Your task to perform on an android device: turn notification dots off Image 0: 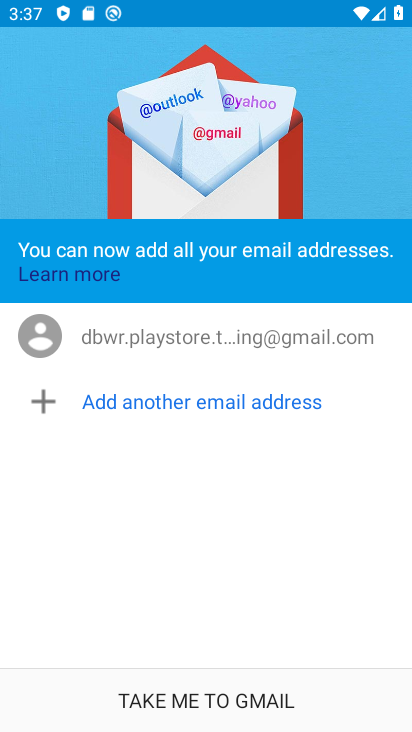
Step 0: press home button
Your task to perform on an android device: turn notification dots off Image 1: 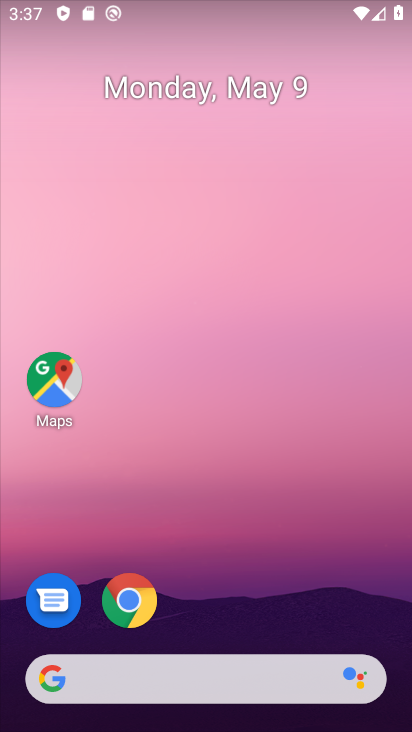
Step 1: drag from (296, 625) to (300, 4)
Your task to perform on an android device: turn notification dots off Image 2: 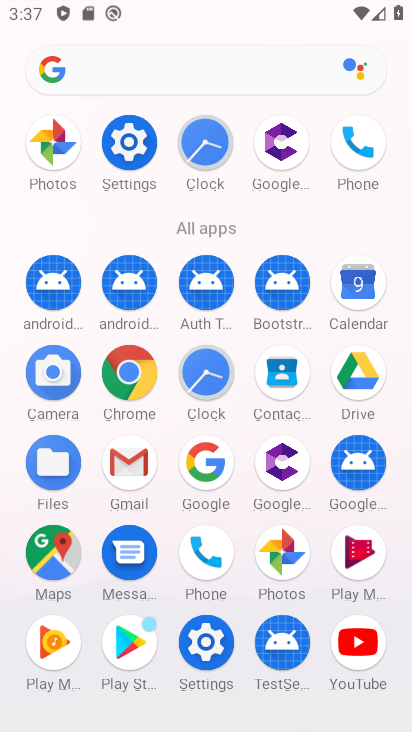
Step 2: click (119, 140)
Your task to perform on an android device: turn notification dots off Image 3: 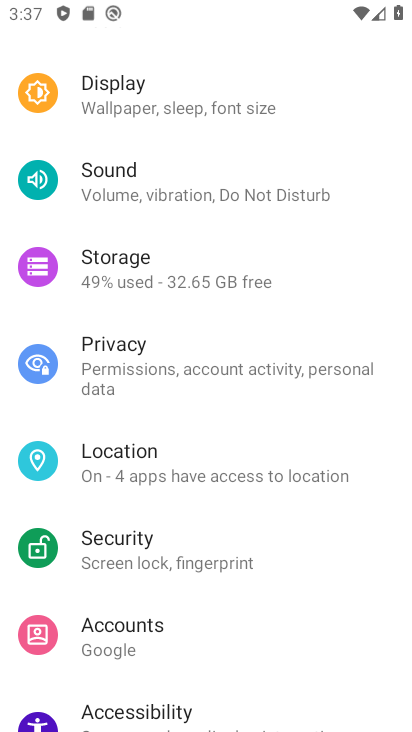
Step 3: drag from (221, 181) to (234, 696)
Your task to perform on an android device: turn notification dots off Image 4: 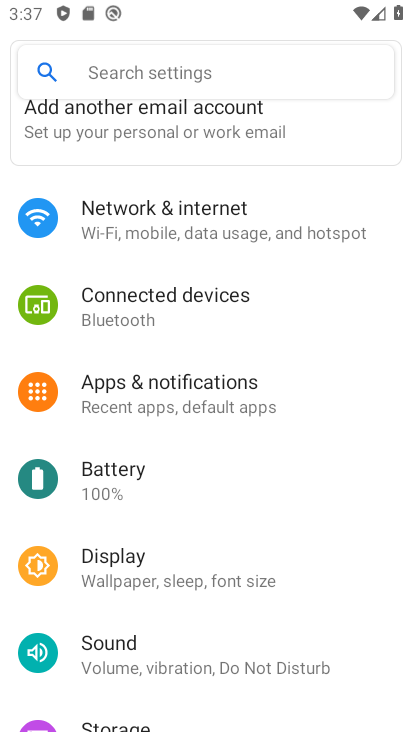
Step 4: click (217, 392)
Your task to perform on an android device: turn notification dots off Image 5: 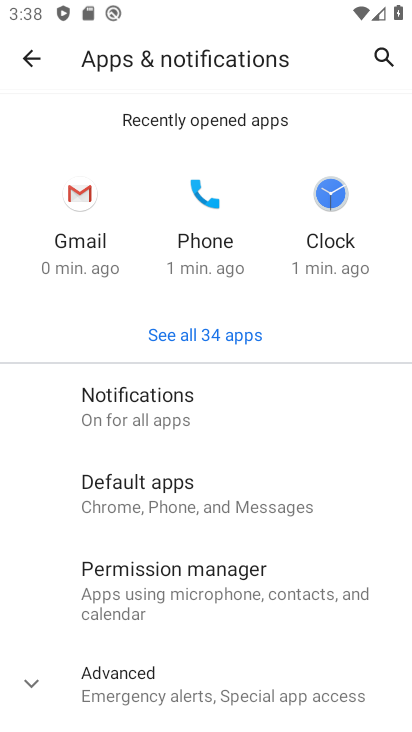
Step 5: click (195, 419)
Your task to perform on an android device: turn notification dots off Image 6: 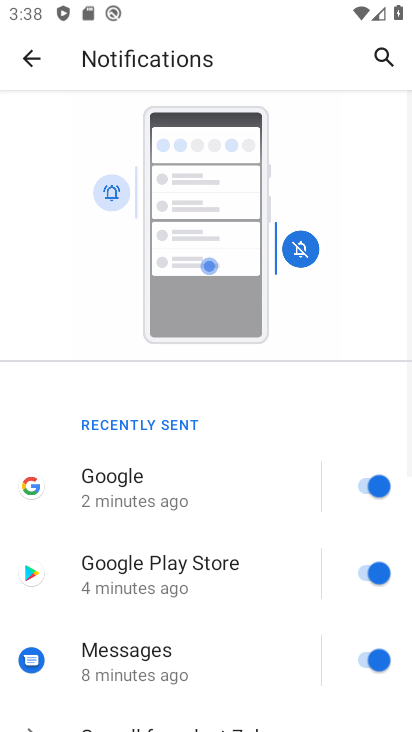
Step 6: drag from (259, 667) to (308, 100)
Your task to perform on an android device: turn notification dots off Image 7: 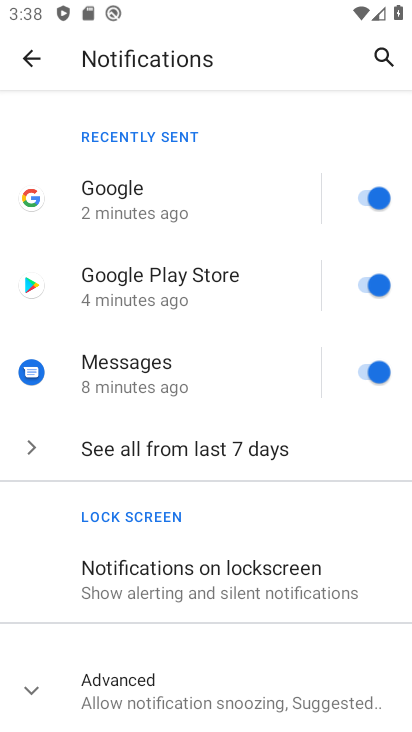
Step 7: click (253, 679)
Your task to perform on an android device: turn notification dots off Image 8: 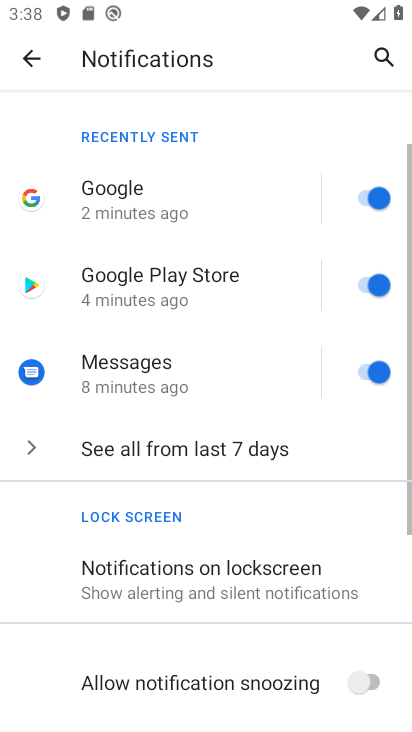
Step 8: drag from (267, 692) to (288, 205)
Your task to perform on an android device: turn notification dots off Image 9: 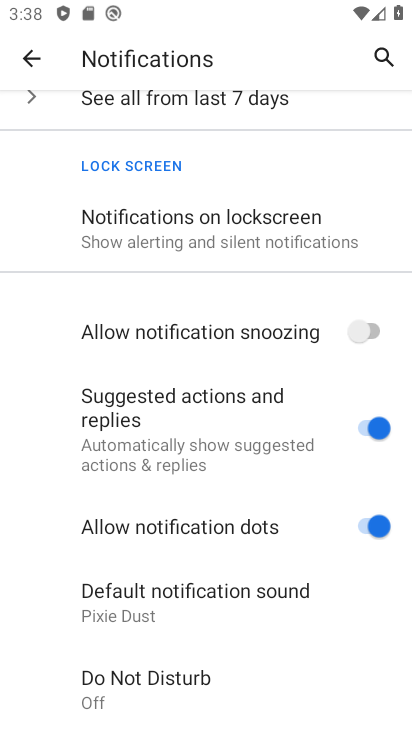
Step 9: click (380, 530)
Your task to perform on an android device: turn notification dots off Image 10: 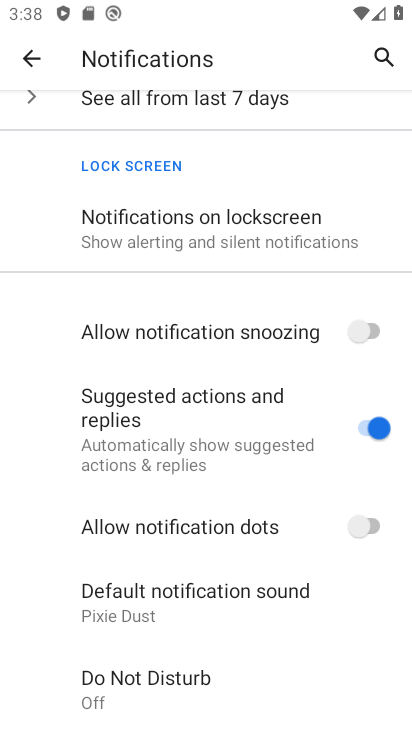
Step 10: task complete